Your task to perform on an android device: change alarm snooze length Image 0: 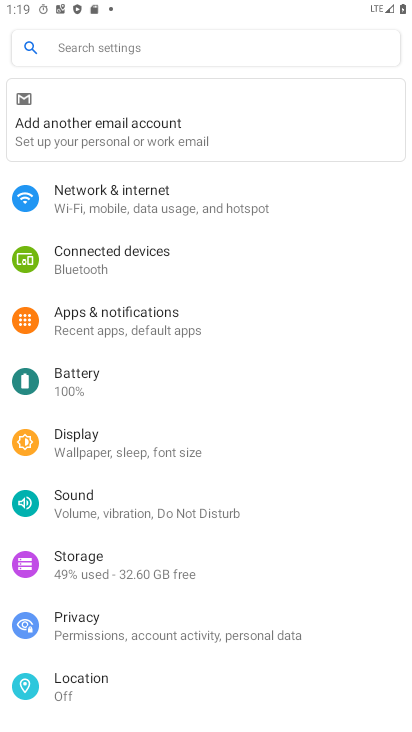
Step 0: press home button
Your task to perform on an android device: change alarm snooze length Image 1: 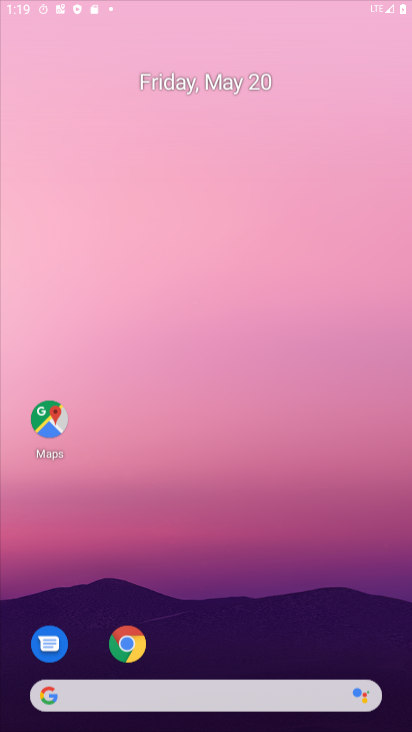
Step 1: press home button
Your task to perform on an android device: change alarm snooze length Image 2: 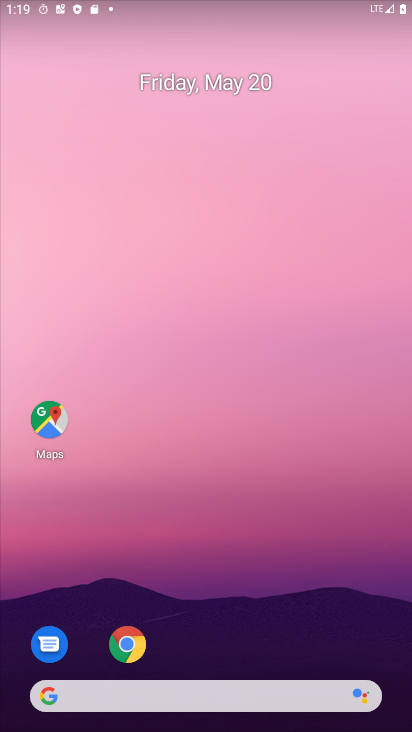
Step 2: drag from (313, 518) to (280, 71)
Your task to perform on an android device: change alarm snooze length Image 3: 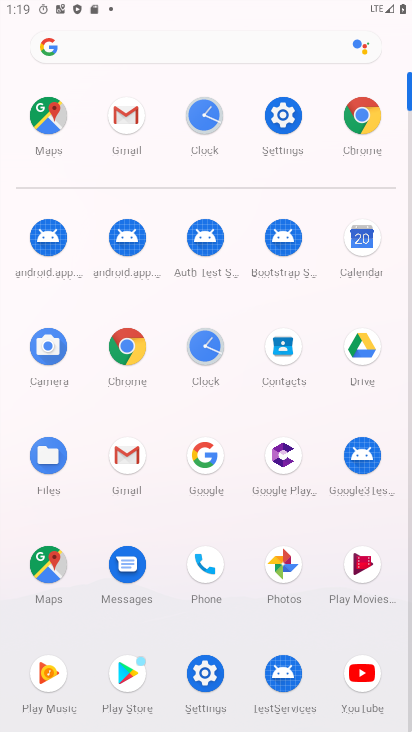
Step 3: click (209, 352)
Your task to perform on an android device: change alarm snooze length Image 4: 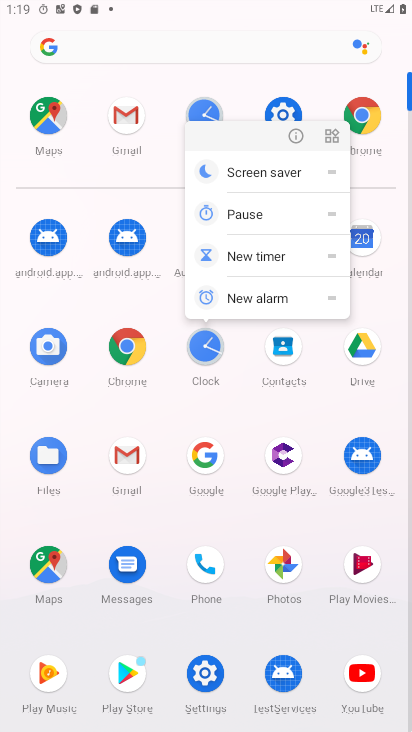
Step 4: click (209, 352)
Your task to perform on an android device: change alarm snooze length Image 5: 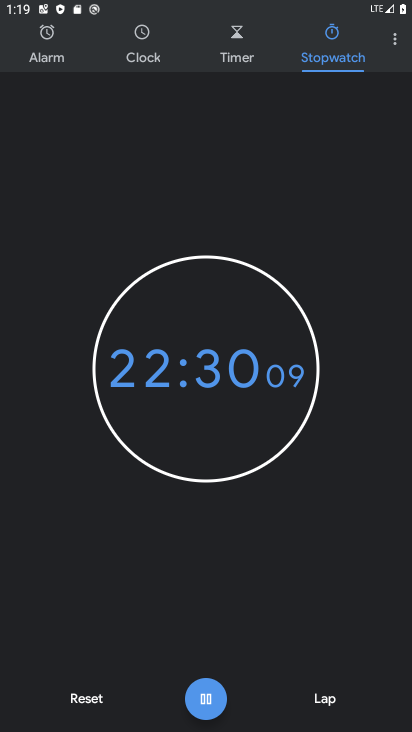
Step 5: click (392, 37)
Your task to perform on an android device: change alarm snooze length Image 6: 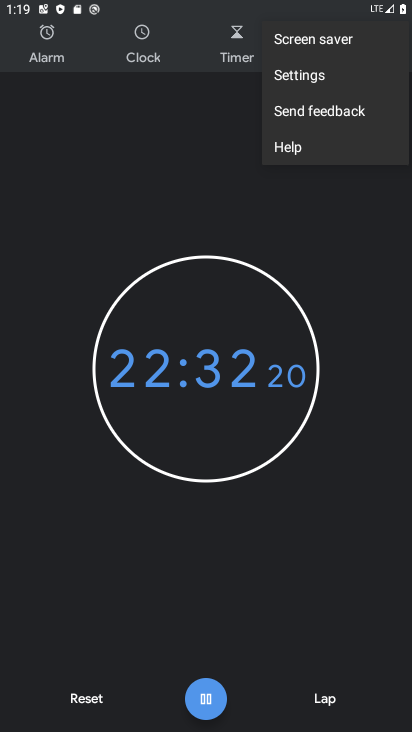
Step 6: click (309, 91)
Your task to perform on an android device: change alarm snooze length Image 7: 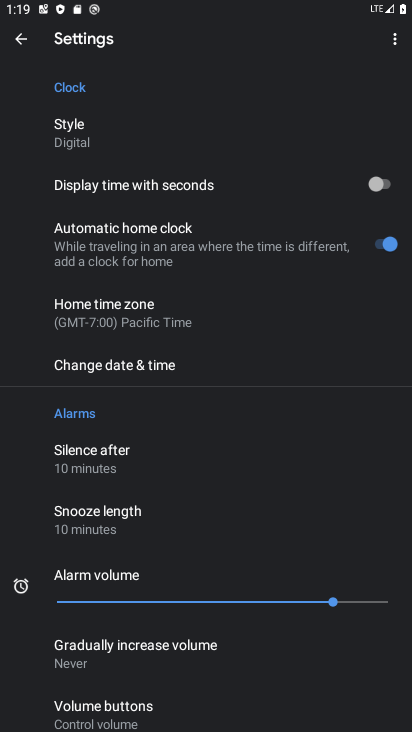
Step 7: click (121, 500)
Your task to perform on an android device: change alarm snooze length Image 8: 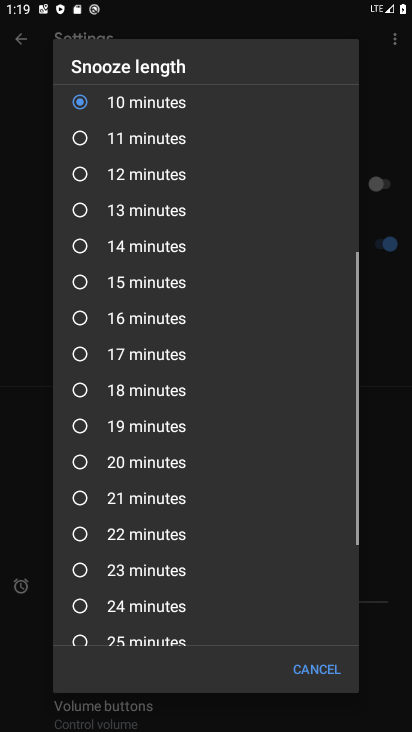
Step 8: click (132, 365)
Your task to perform on an android device: change alarm snooze length Image 9: 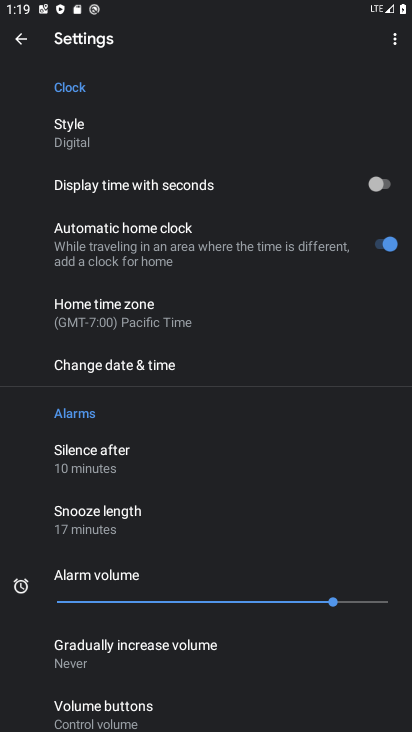
Step 9: task complete